Your task to perform on an android device: open app "ColorNote Notepad Notes" (install if not already installed) and go to login screen Image 0: 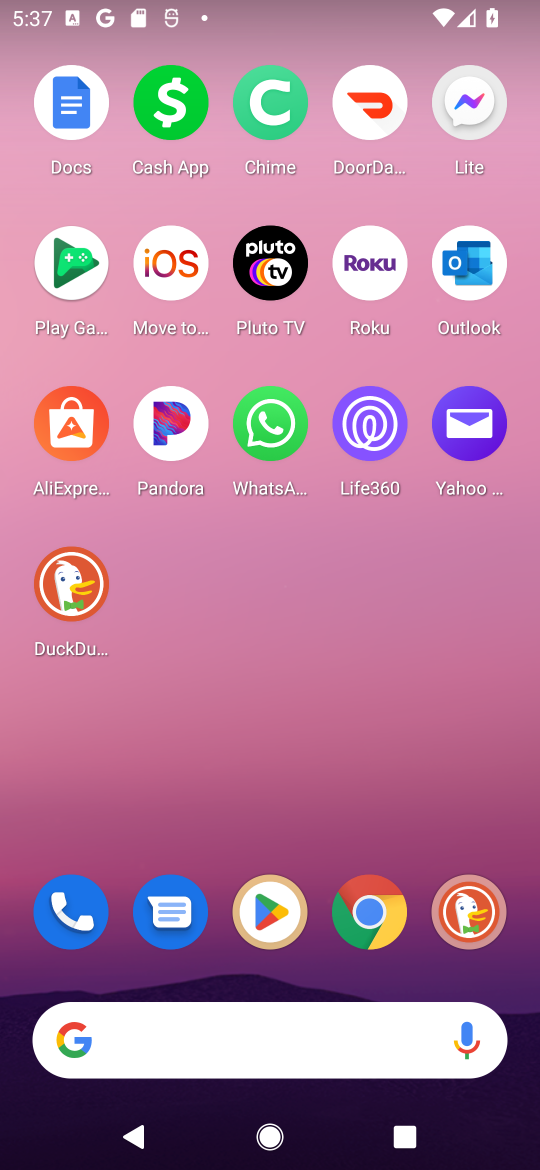
Step 0: drag from (248, 917) to (253, 628)
Your task to perform on an android device: open app "ColorNote Notepad Notes" (install if not already installed) and go to login screen Image 1: 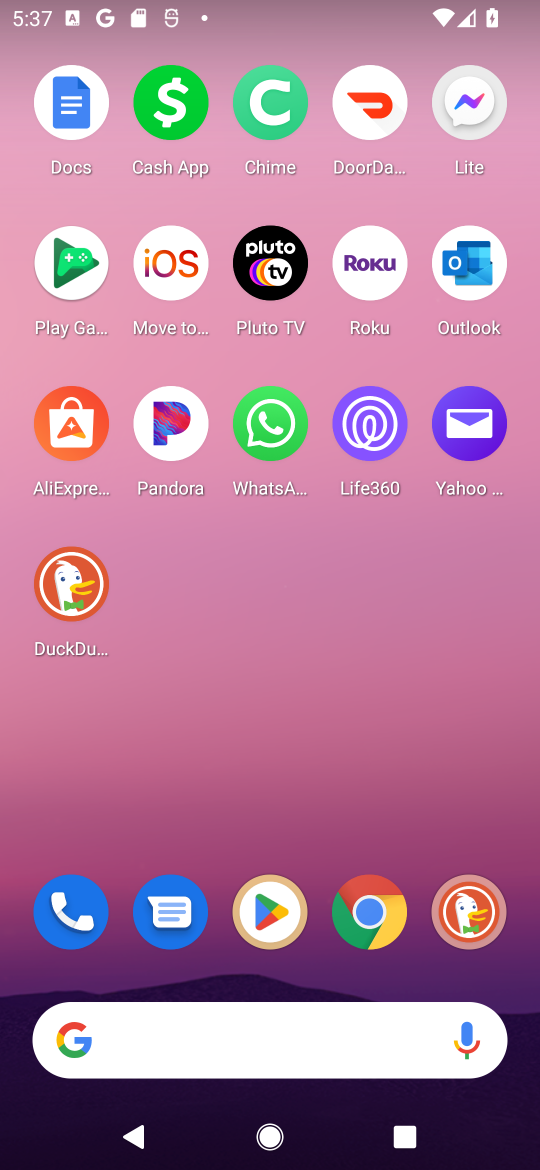
Step 1: drag from (300, 957) to (302, 732)
Your task to perform on an android device: open app "ColorNote Notepad Notes" (install if not already installed) and go to login screen Image 2: 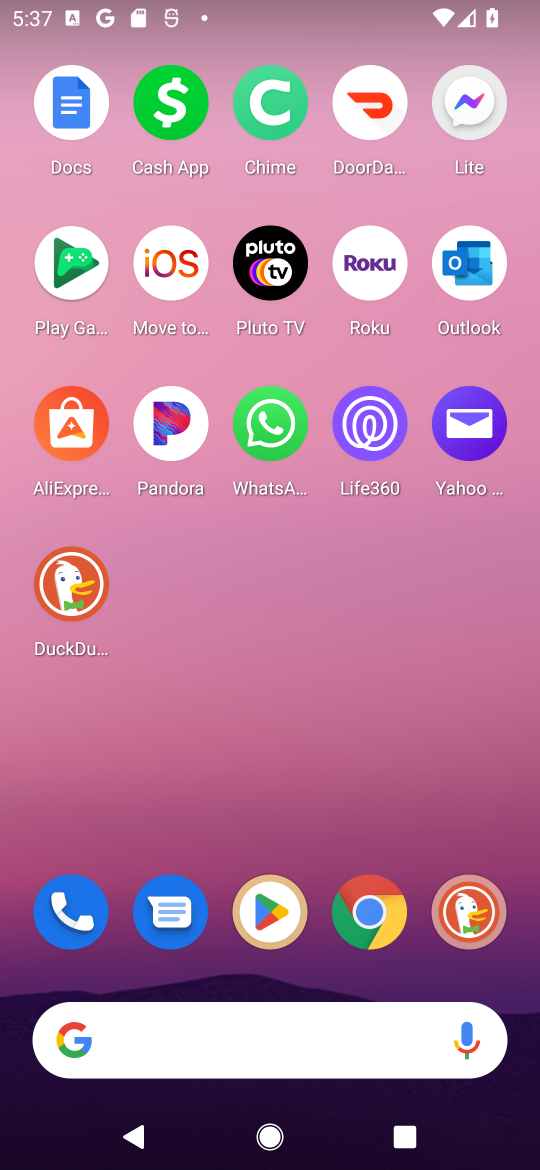
Step 2: drag from (300, 945) to (296, 86)
Your task to perform on an android device: open app "ColorNote Notepad Notes" (install if not already installed) and go to login screen Image 3: 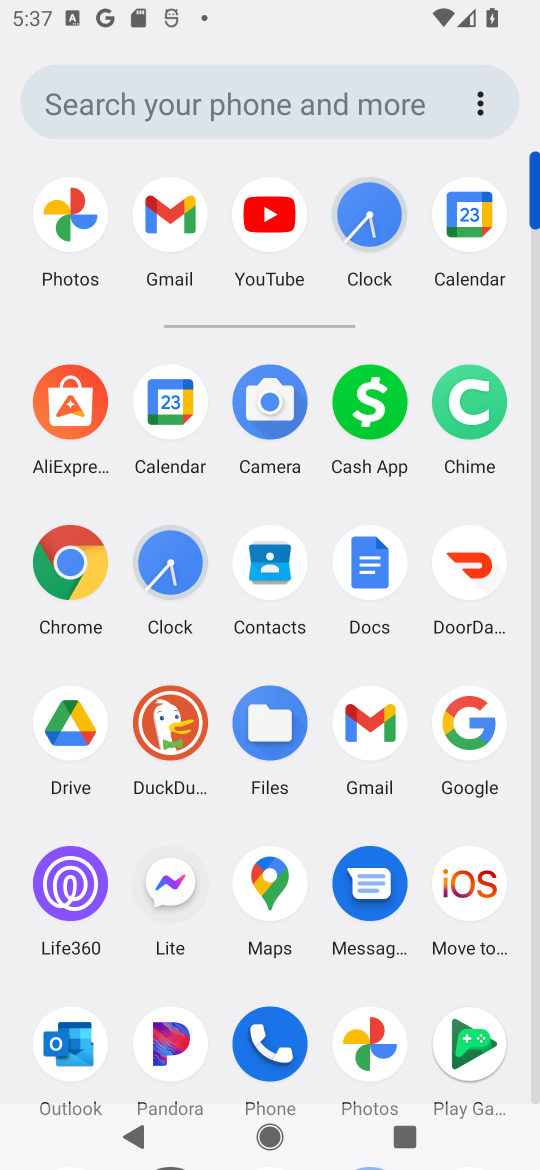
Step 3: drag from (200, 931) to (286, 75)
Your task to perform on an android device: open app "ColorNote Notepad Notes" (install if not already installed) and go to login screen Image 4: 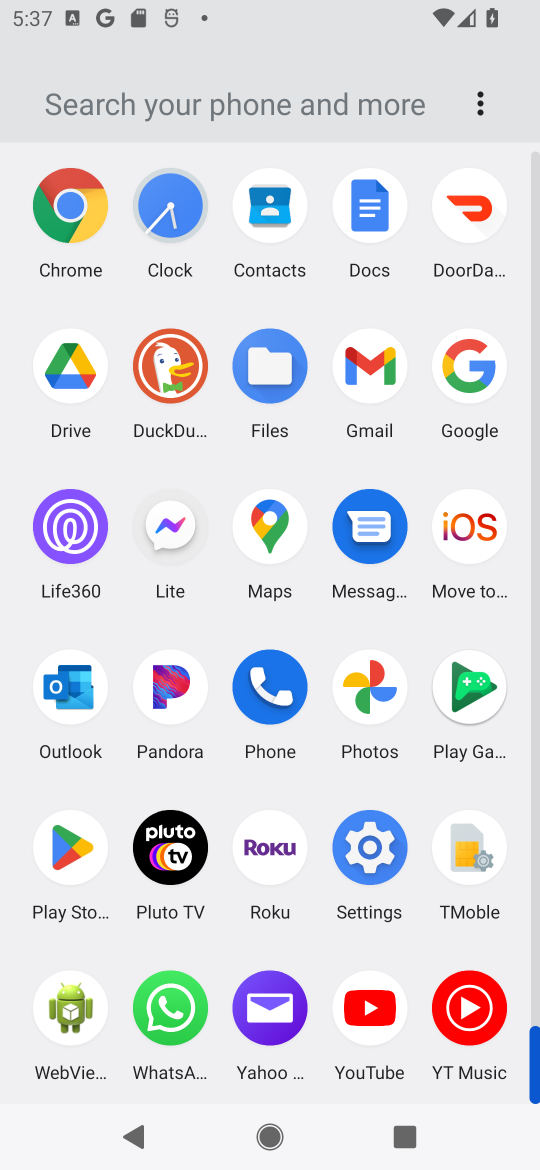
Step 4: click (78, 839)
Your task to perform on an android device: open app "ColorNote Notepad Notes" (install if not already installed) and go to login screen Image 5: 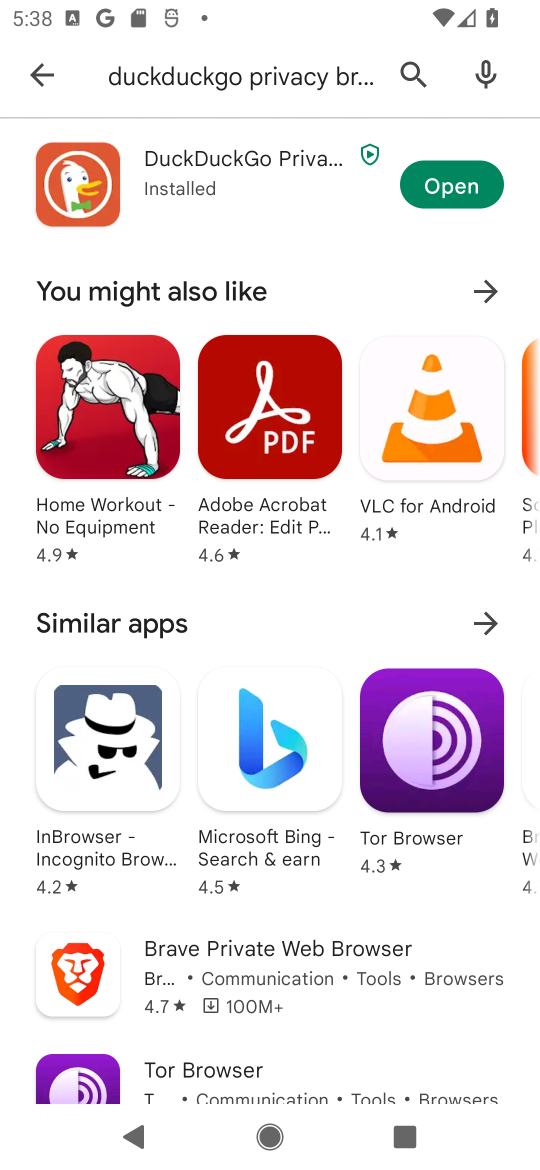
Step 5: click (40, 51)
Your task to perform on an android device: open app "ColorNote Notepad Notes" (install if not already installed) and go to login screen Image 6: 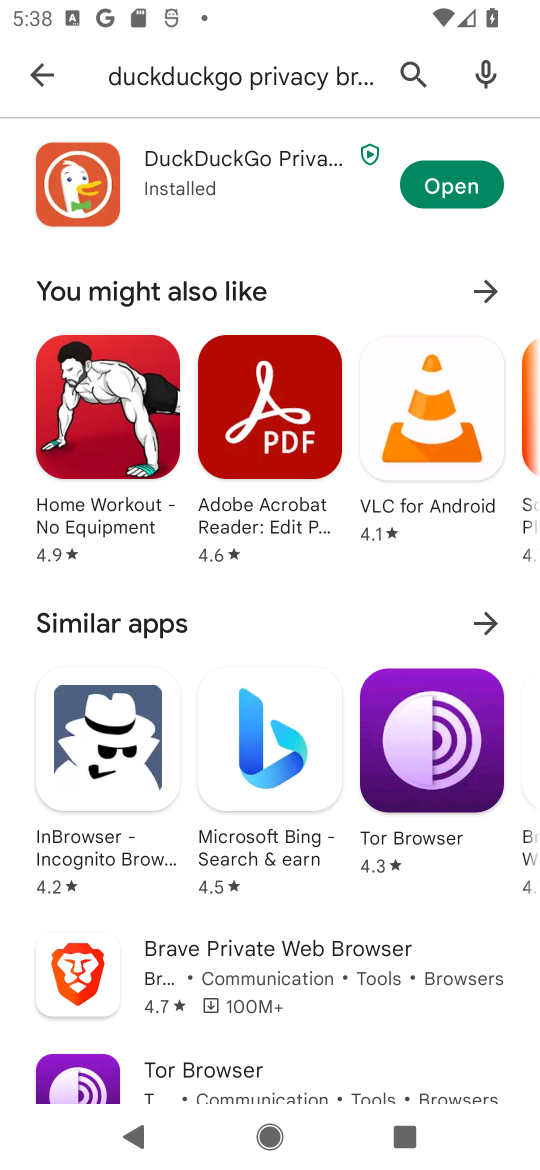
Step 6: click (47, 78)
Your task to perform on an android device: open app "ColorNote Notepad Notes" (install if not already installed) and go to login screen Image 7: 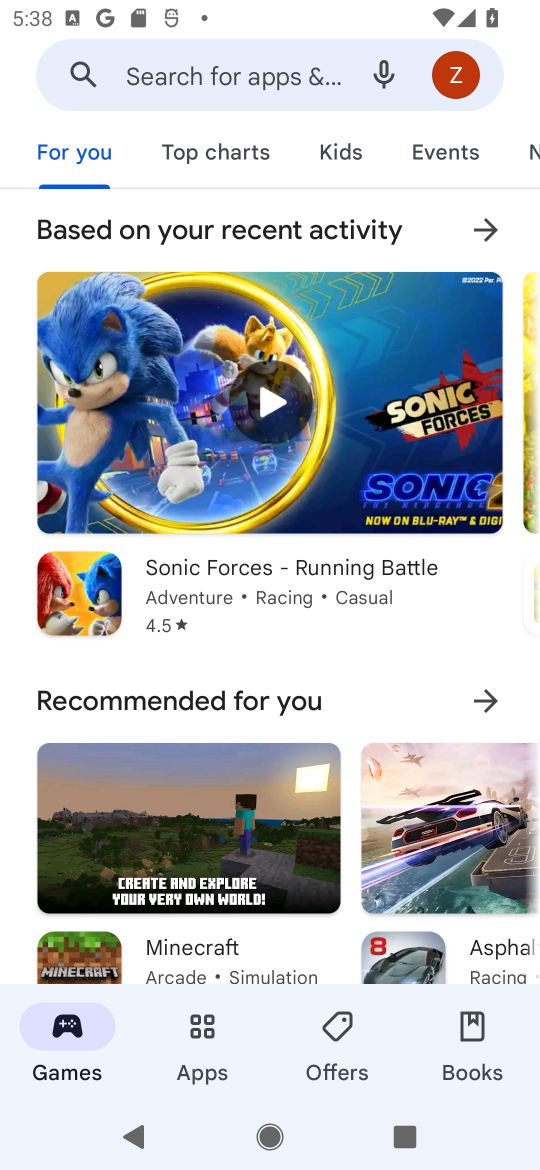
Step 7: click (218, 58)
Your task to perform on an android device: open app "ColorNote Notepad Notes" (install if not already installed) and go to login screen Image 8: 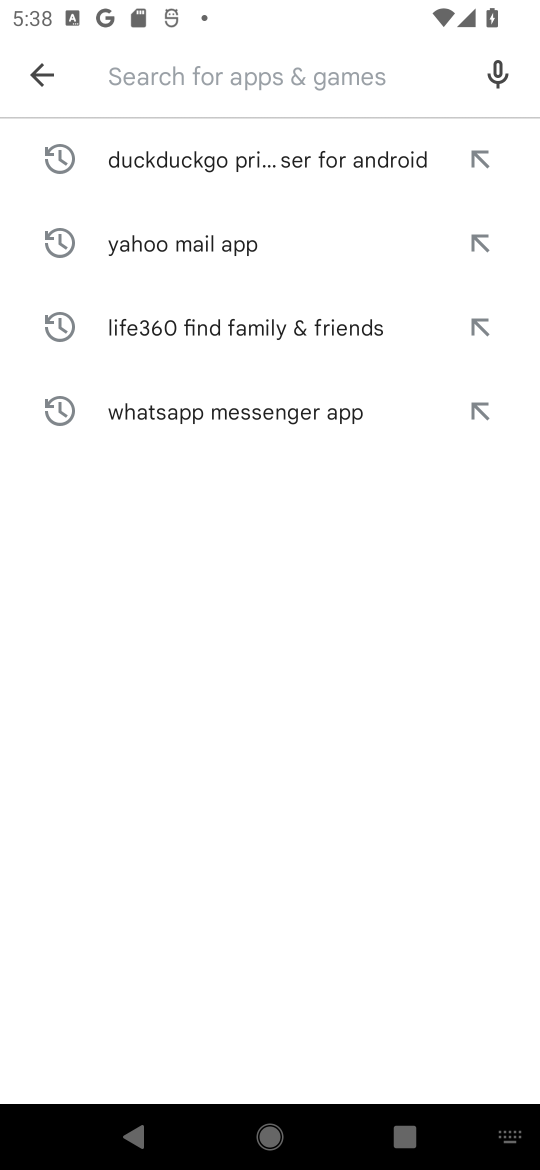
Step 8: type "ColorNote Notepad Notes "
Your task to perform on an android device: open app "ColorNote Notepad Notes" (install if not already installed) and go to login screen Image 9: 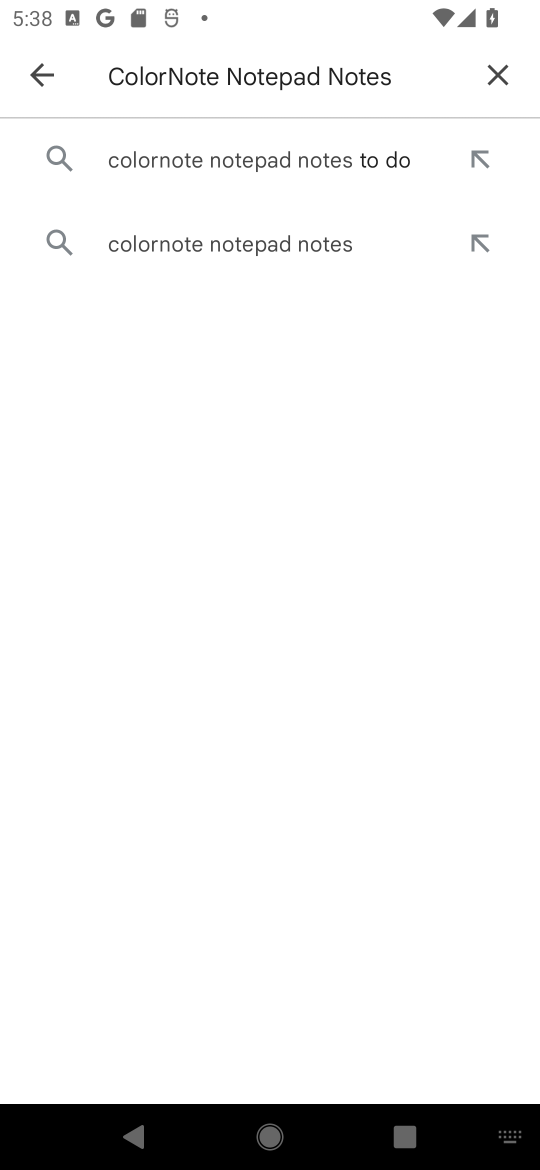
Step 9: click (283, 160)
Your task to perform on an android device: open app "ColorNote Notepad Notes" (install if not already installed) and go to login screen Image 10: 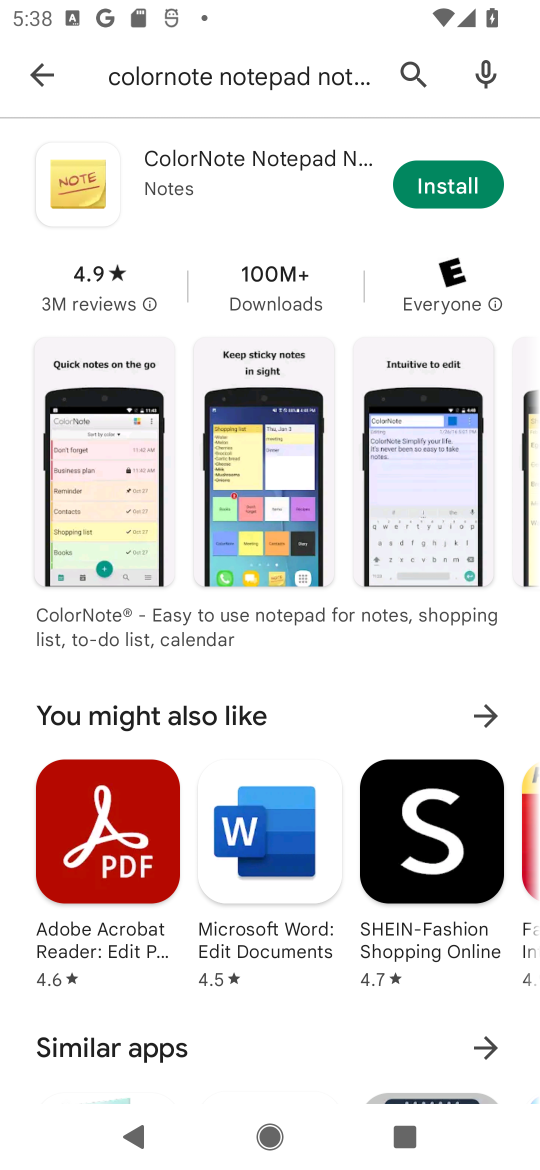
Step 10: click (429, 187)
Your task to perform on an android device: open app "ColorNote Notepad Notes" (install if not already installed) and go to login screen Image 11: 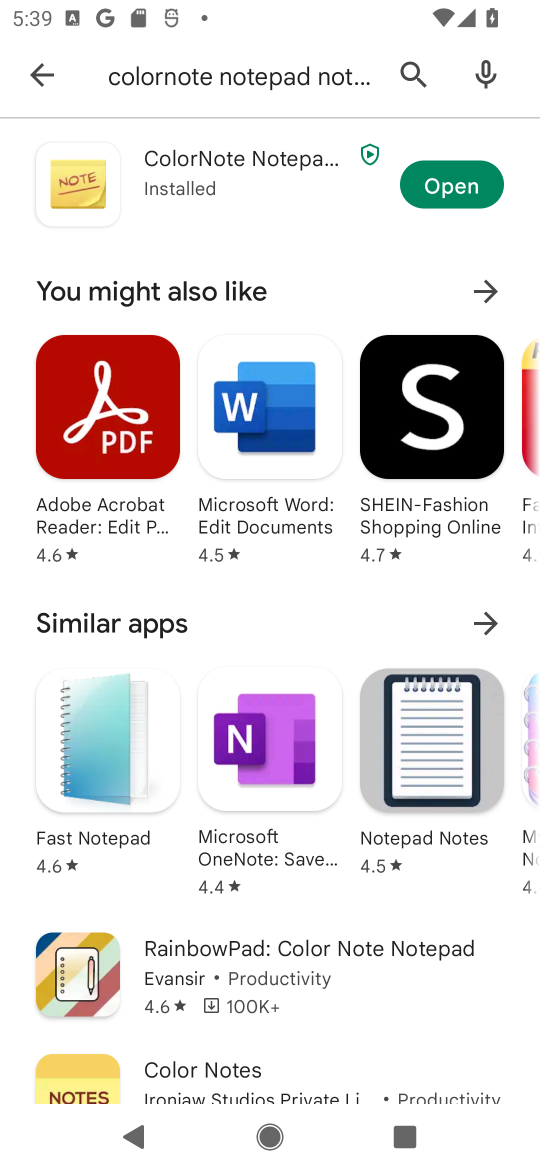
Step 11: click (416, 181)
Your task to perform on an android device: open app "ColorNote Notepad Notes" (install if not already installed) and go to login screen Image 12: 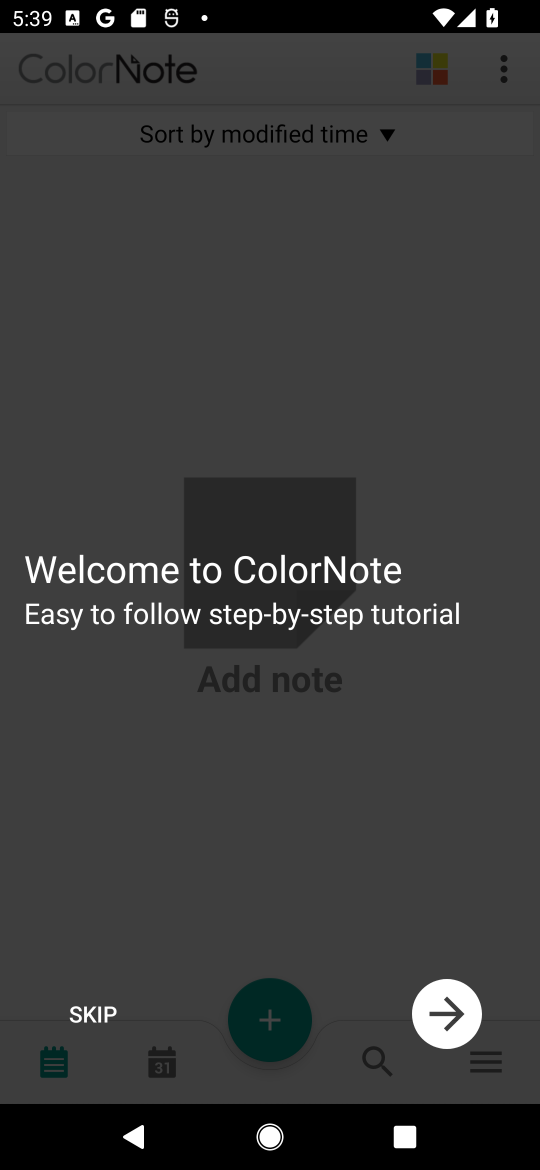
Step 12: press home button
Your task to perform on an android device: open app "ColorNote Notepad Notes" (install if not already installed) and go to login screen Image 13: 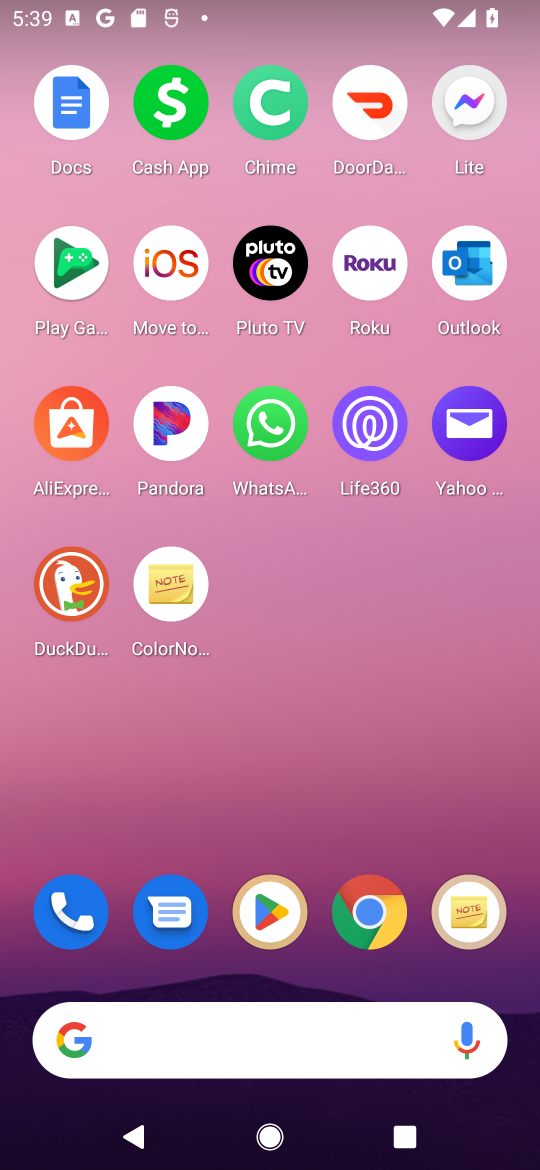
Step 13: click (255, 893)
Your task to perform on an android device: open app "ColorNote Notepad Notes" (install if not already installed) and go to login screen Image 14: 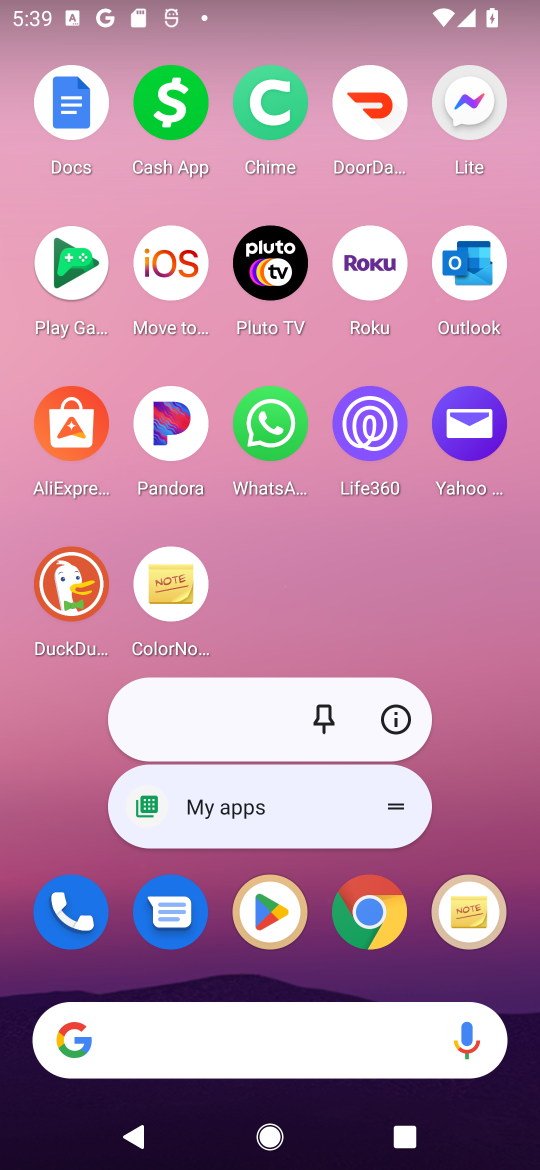
Step 14: click (285, 914)
Your task to perform on an android device: open app "ColorNote Notepad Notes" (install if not already installed) and go to login screen Image 15: 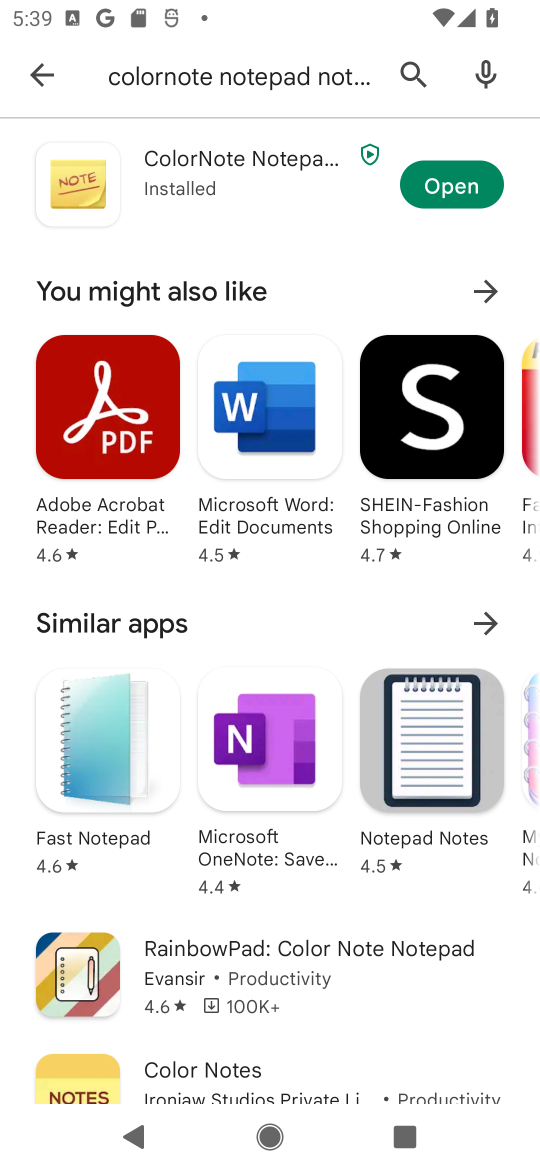
Step 15: click (425, 188)
Your task to perform on an android device: open app "ColorNote Notepad Notes" (install if not already installed) and go to login screen Image 16: 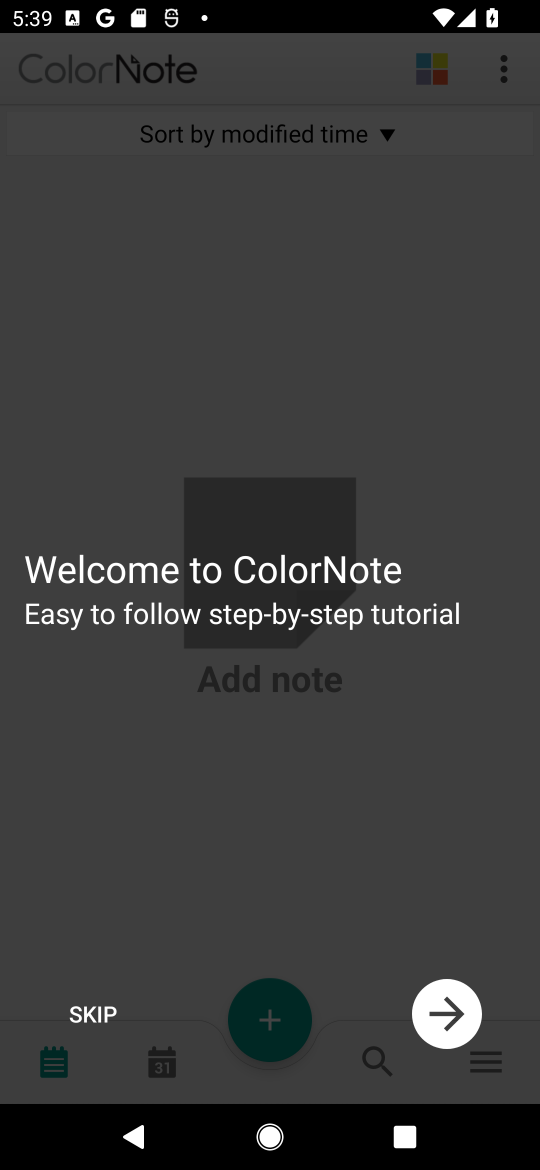
Step 16: task complete